Your task to perform on an android device: turn pop-ups off in chrome Image 0: 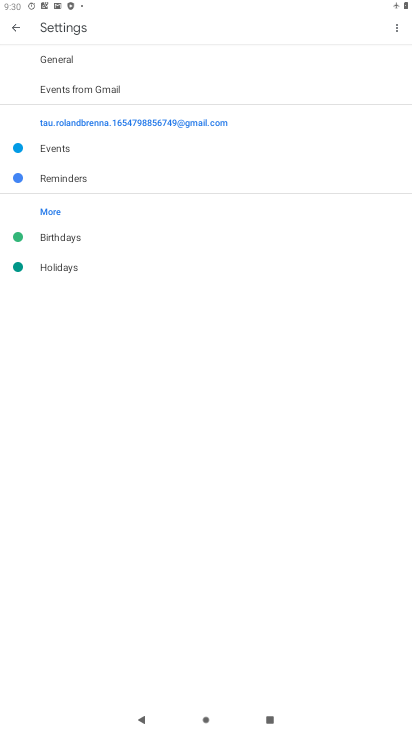
Step 0: drag from (181, 618) to (186, 242)
Your task to perform on an android device: turn pop-ups off in chrome Image 1: 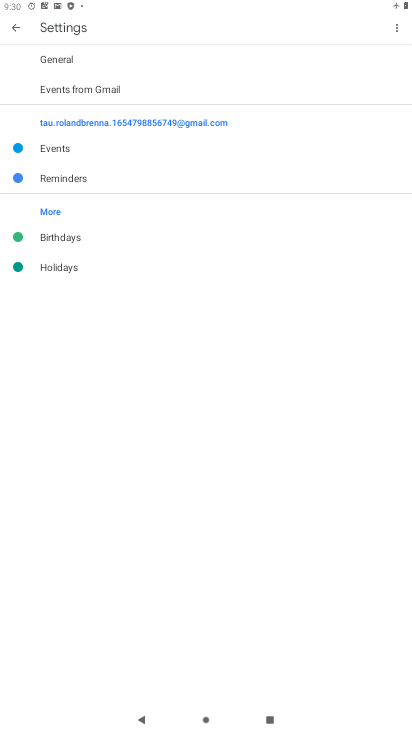
Step 1: press home button
Your task to perform on an android device: turn pop-ups off in chrome Image 2: 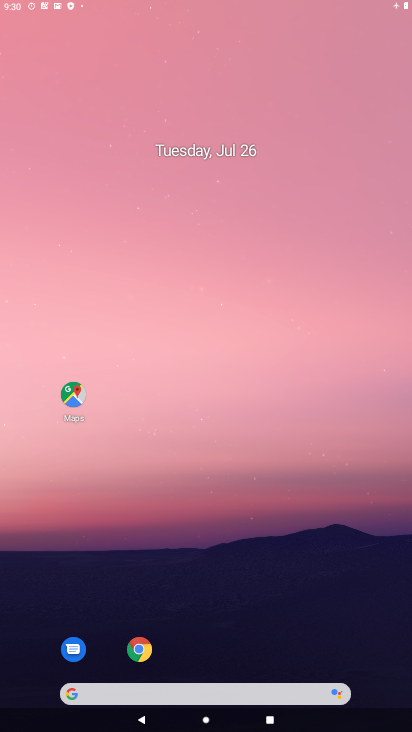
Step 2: drag from (206, 584) to (345, 7)
Your task to perform on an android device: turn pop-ups off in chrome Image 3: 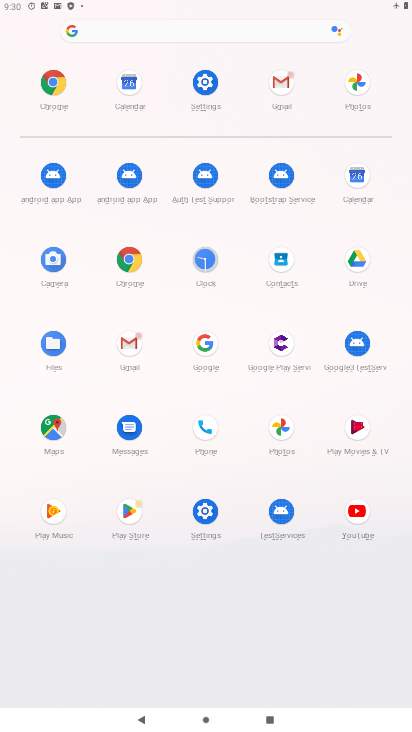
Step 3: click (129, 260)
Your task to perform on an android device: turn pop-ups off in chrome Image 4: 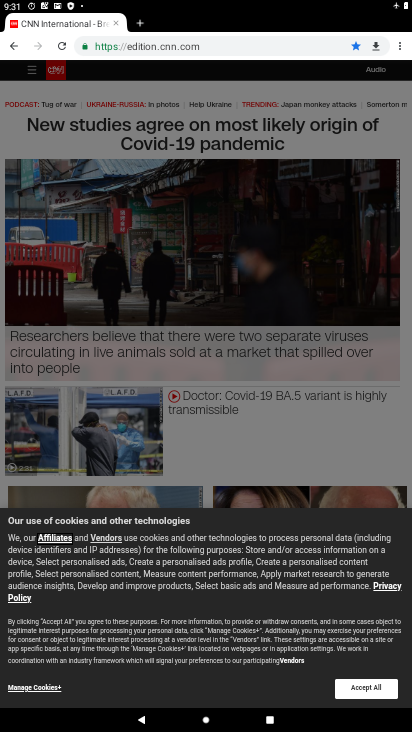
Step 4: click (141, 47)
Your task to perform on an android device: turn pop-ups off in chrome Image 5: 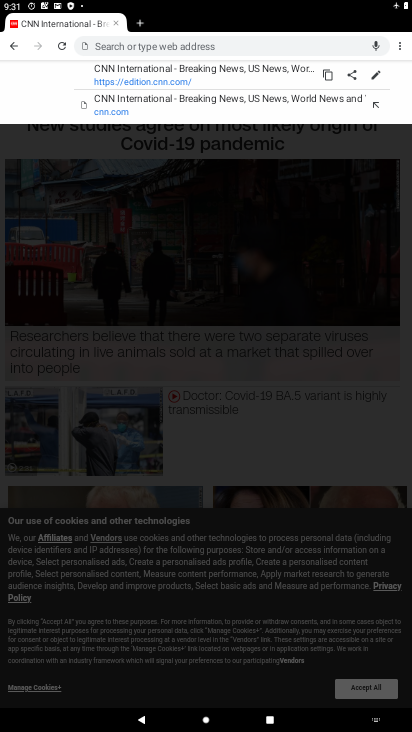
Step 5: drag from (263, 551) to (285, 182)
Your task to perform on an android device: turn pop-ups off in chrome Image 6: 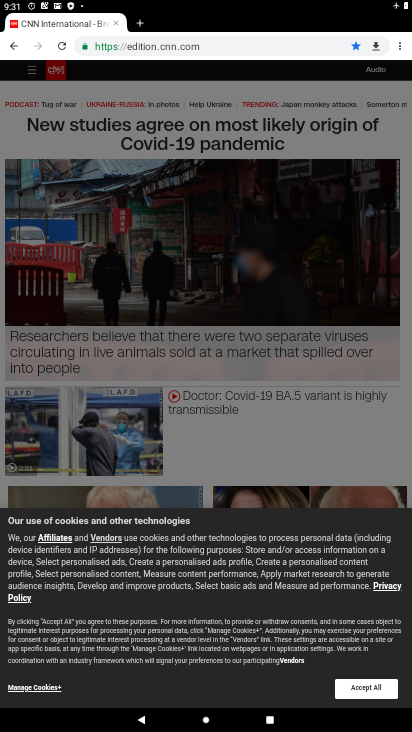
Step 6: drag from (398, 43) to (320, 284)
Your task to perform on an android device: turn pop-ups off in chrome Image 7: 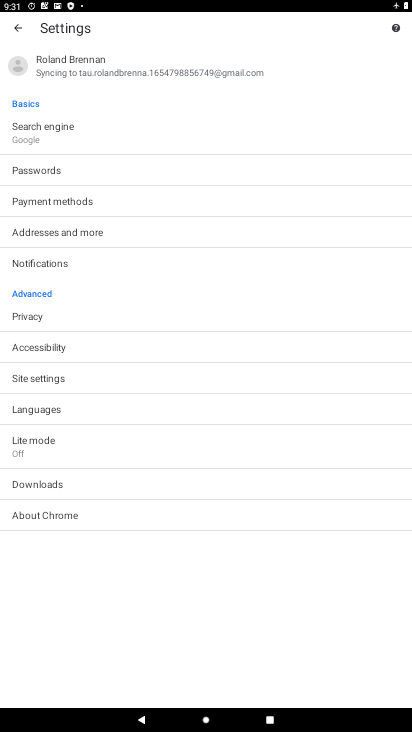
Step 7: click (71, 378)
Your task to perform on an android device: turn pop-ups off in chrome Image 8: 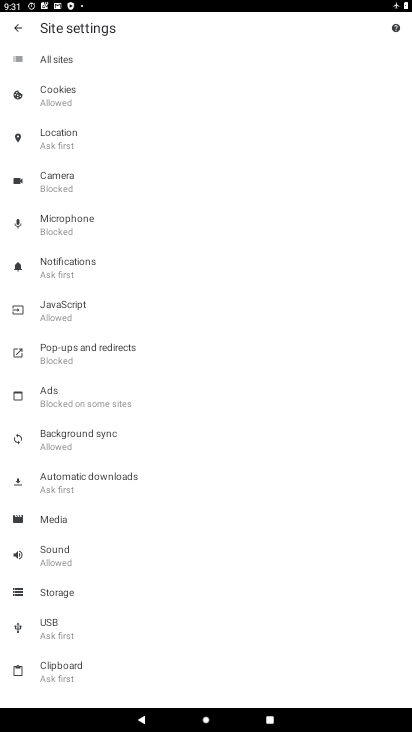
Step 8: click (86, 352)
Your task to perform on an android device: turn pop-ups off in chrome Image 9: 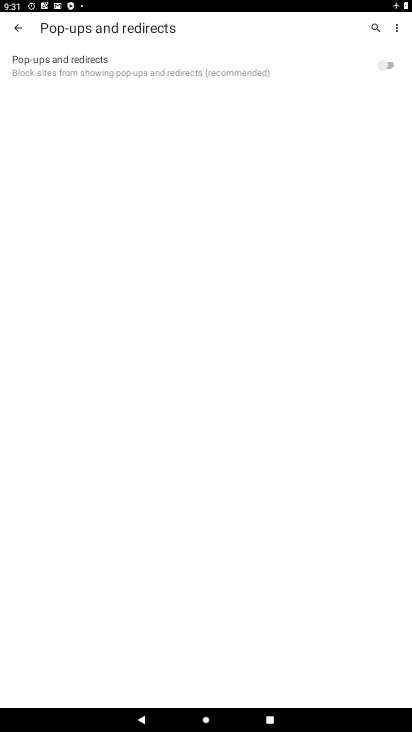
Step 9: task complete